Your task to perform on an android device: Go to Wikipedia Image 0: 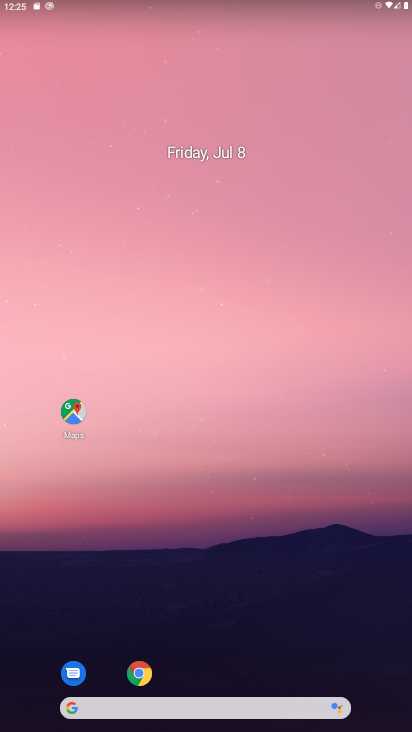
Step 0: click (132, 669)
Your task to perform on an android device: Go to Wikipedia Image 1: 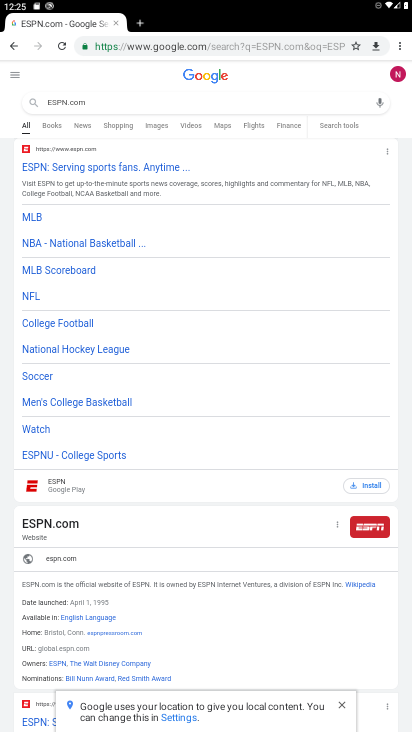
Step 1: click (117, 103)
Your task to perform on an android device: Go to Wikipedia Image 2: 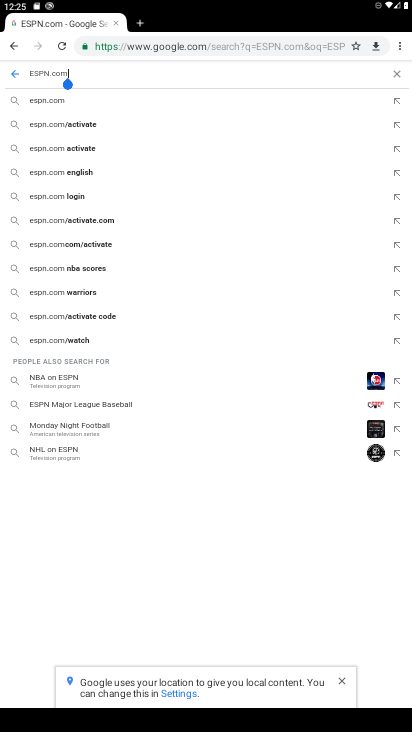
Step 2: click (395, 75)
Your task to perform on an android device: Go to Wikipedia Image 3: 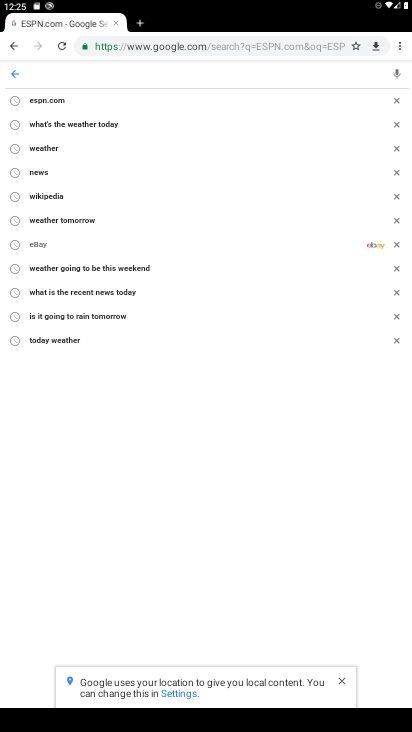
Step 3: type "Wikipedia"
Your task to perform on an android device: Go to Wikipedia Image 4: 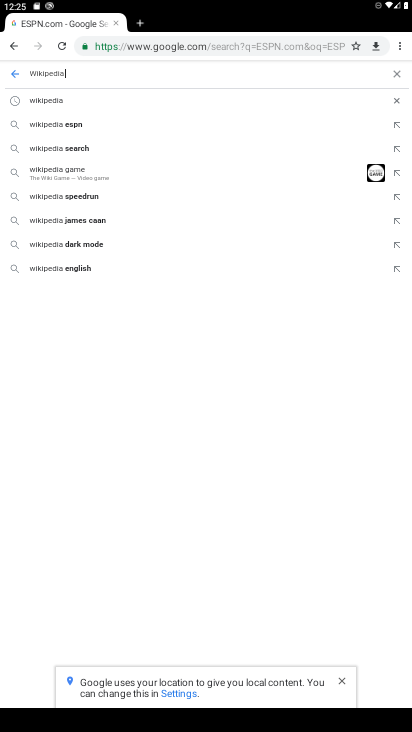
Step 4: click (49, 100)
Your task to perform on an android device: Go to Wikipedia Image 5: 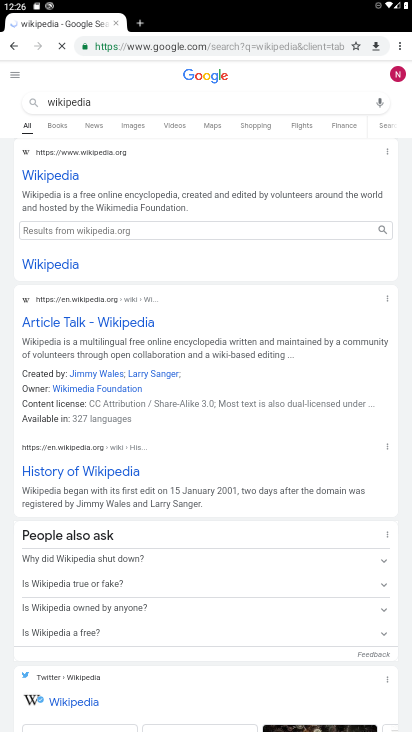
Step 5: click (60, 173)
Your task to perform on an android device: Go to Wikipedia Image 6: 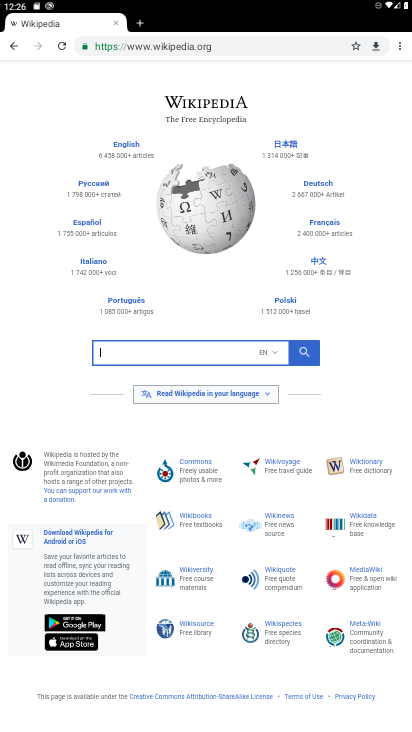
Step 6: task complete